Your task to perform on an android device: open the mobile data screen to see how much data has been used Image 0: 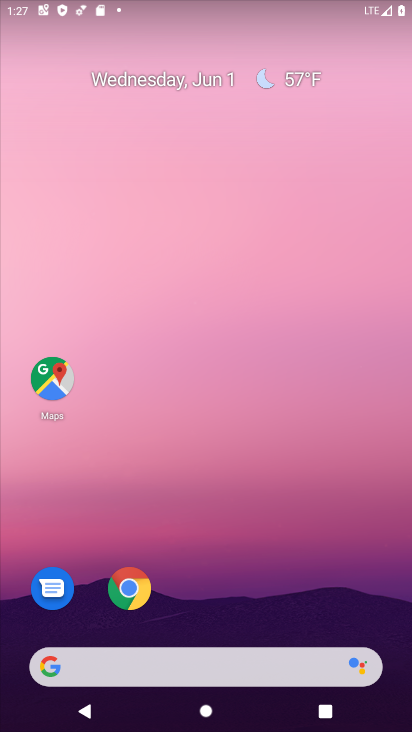
Step 0: drag from (307, 554) to (232, 5)
Your task to perform on an android device: open the mobile data screen to see how much data has been used Image 1: 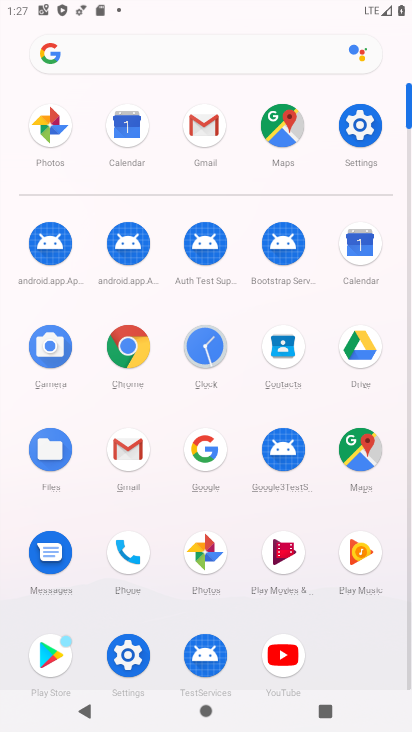
Step 1: click (353, 119)
Your task to perform on an android device: open the mobile data screen to see how much data has been used Image 2: 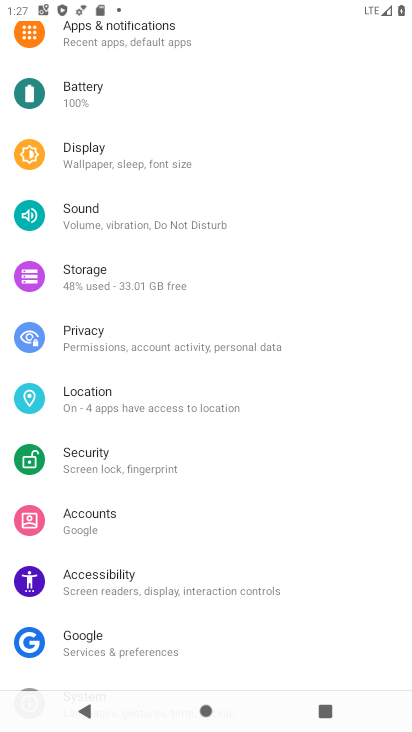
Step 2: drag from (205, 185) to (189, 640)
Your task to perform on an android device: open the mobile data screen to see how much data has been used Image 3: 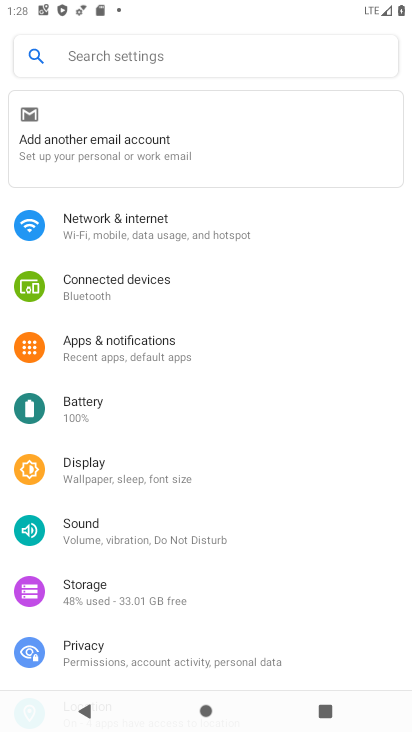
Step 3: click (178, 223)
Your task to perform on an android device: open the mobile data screen to see how much data has been used Image 4: 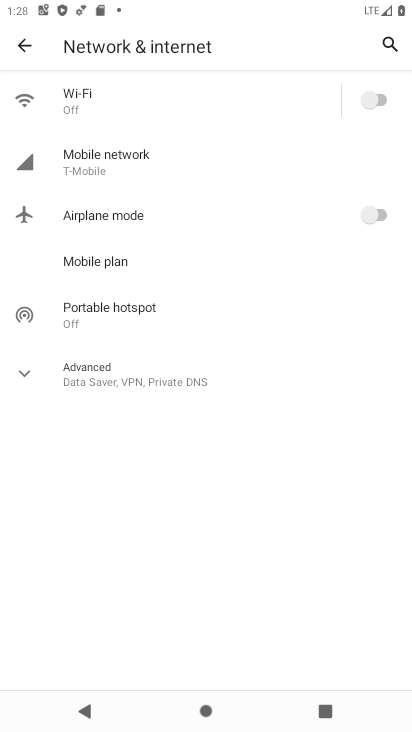
Step 4: click (150, 146)
Your task to perform on an android device: open the mobile data screen to see how much data has been used Image 5: 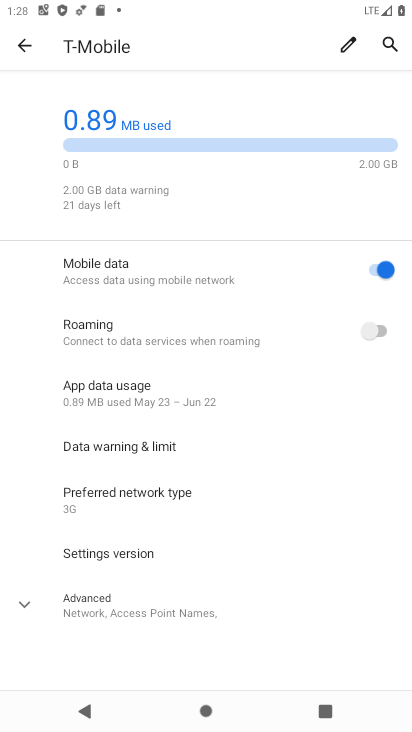
Step 5: task complete